Your task to perform on an android device: What is the news today? Image 0: 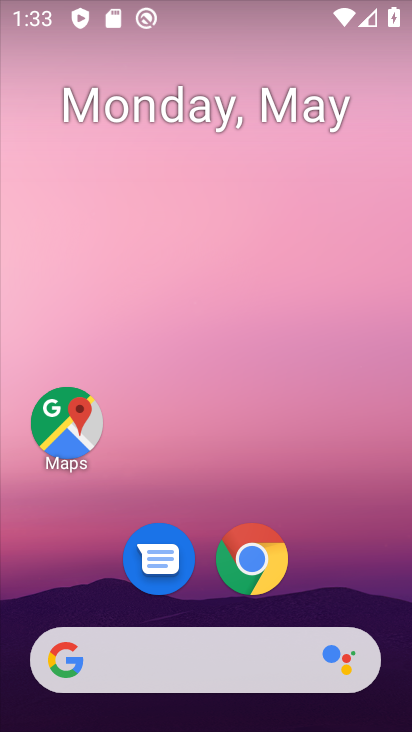
Step 0: drag from (362, 496) to (311, 40)
Your task to perform on an android device: What is the news today? Image 1: 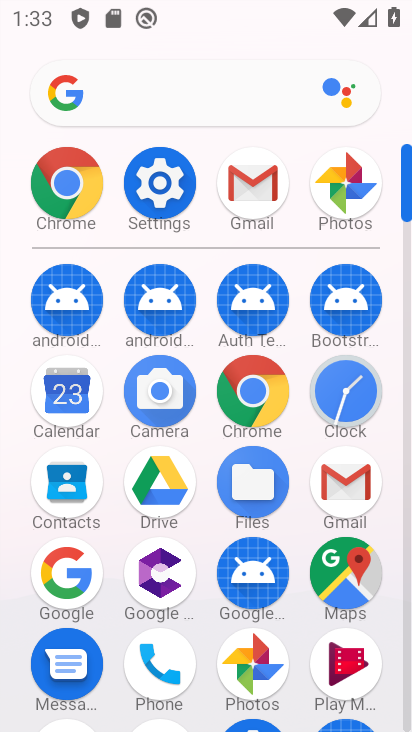
Step 1: click (247, 394)
Your task to perform on an android device: What is the news today? Image 2: 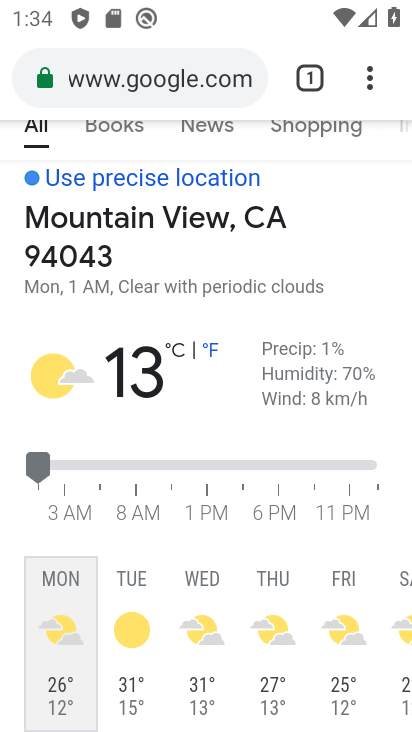
Step 2: click (184, 75)
Your task to perform on an android device: What is the news today? Image 3: 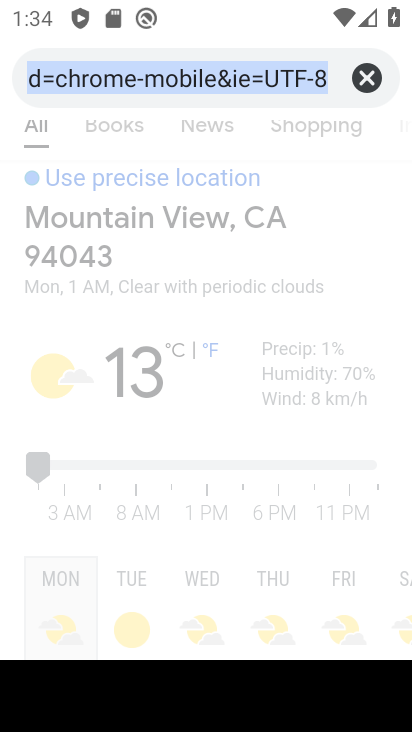
Step 3: type "news"
Your task to perform on an android device: What is the news today? Image 4: 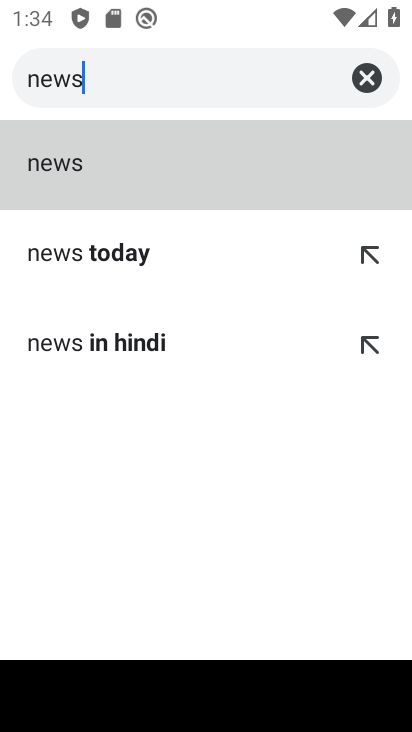
Step 4: click (71, 169)
Your task to perform on an android device: What is the news today? Image 5: 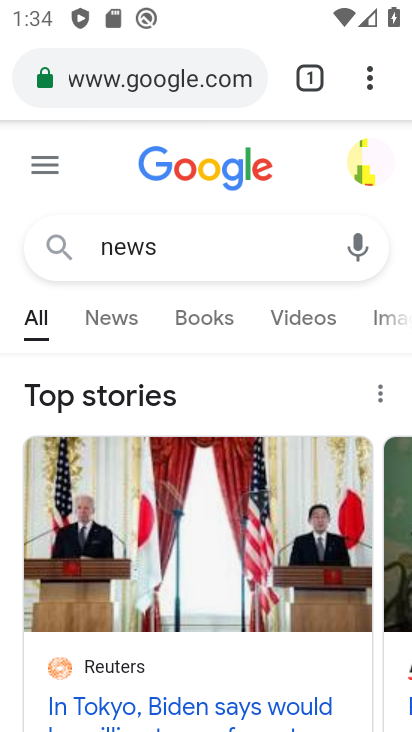
Step 5: click (119, 318)
Your task to perform on an android device: What is the news today? Image 6: 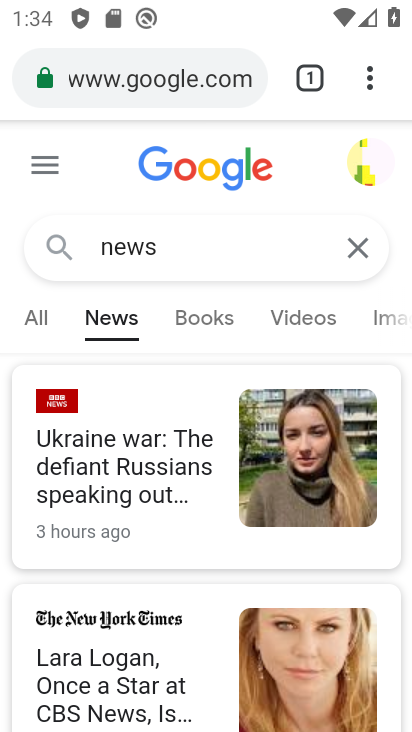
Step 6: task complete